Your task to perform on an android device: Open the stopwatch Image 0: 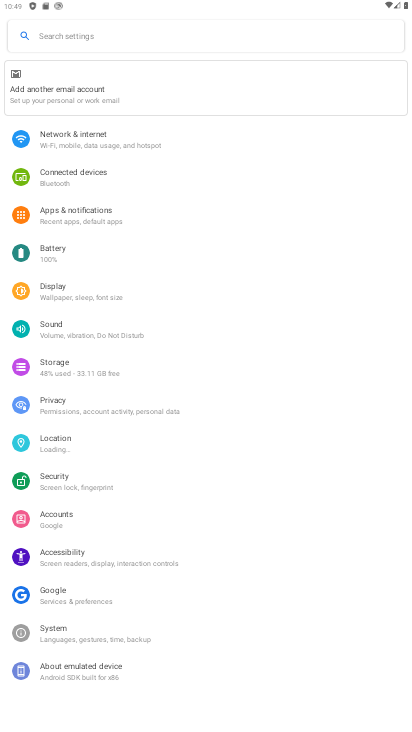
Step 0: press home button
Your task to perform on an android device: Open the stopwatch Image 1: 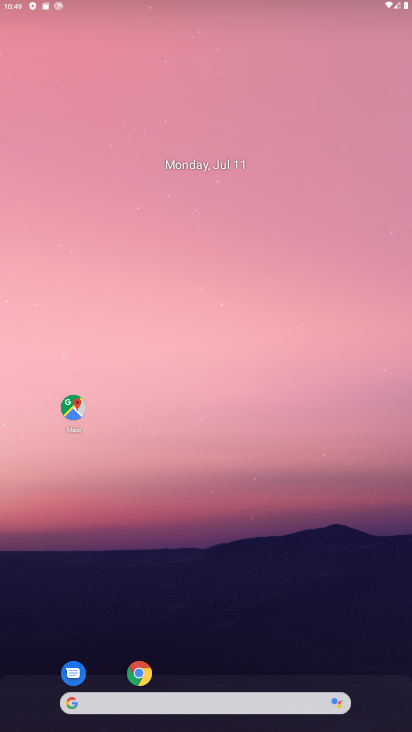
Step 1: drag from (316, 649) to (398, 11)
Your task to perform on an android device: Open the stopwatch Image 2: 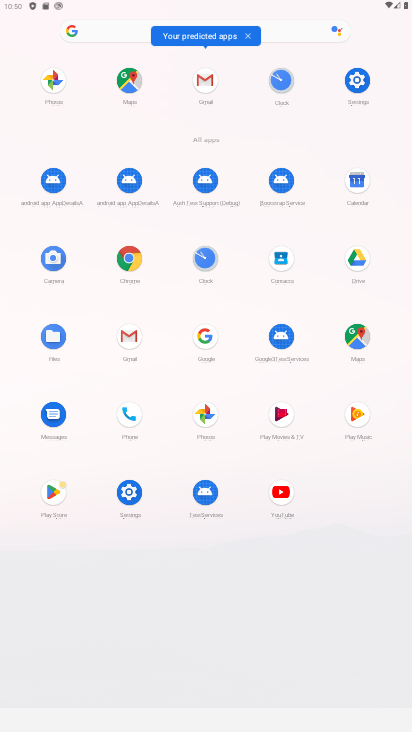
Step 2: click (217, 259)
Your task to perform on an android device: Open the stopwatch Image 3: 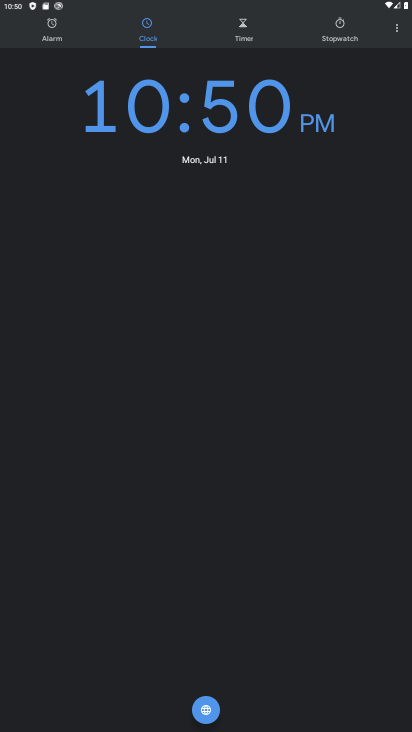
Step 3: click (327, 39)
Your task to perform on an android device: Open the stopwatch Image 4: 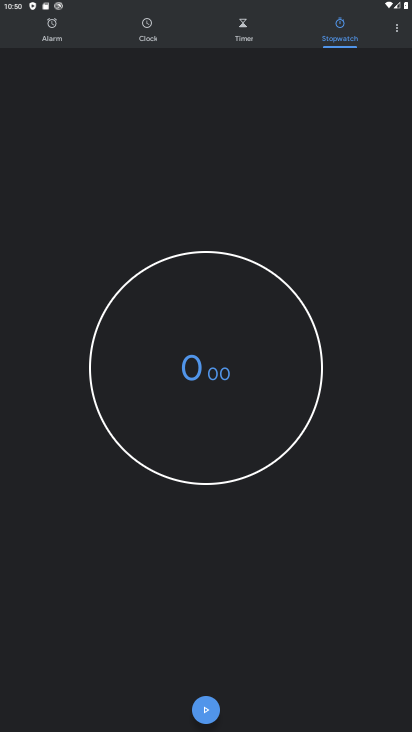
Step 4: click (204, 710)
Your task to perform on an android device: Open the stopwatch Image 5: 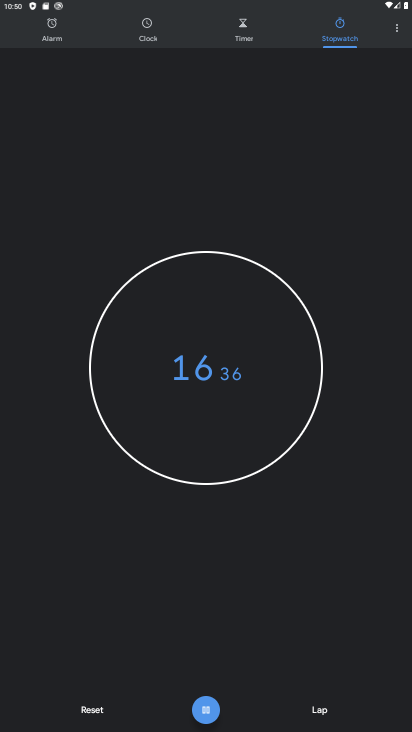
Step 5: task complete